Your task to perform on an android device: uninstall "Instagram" Image 0: 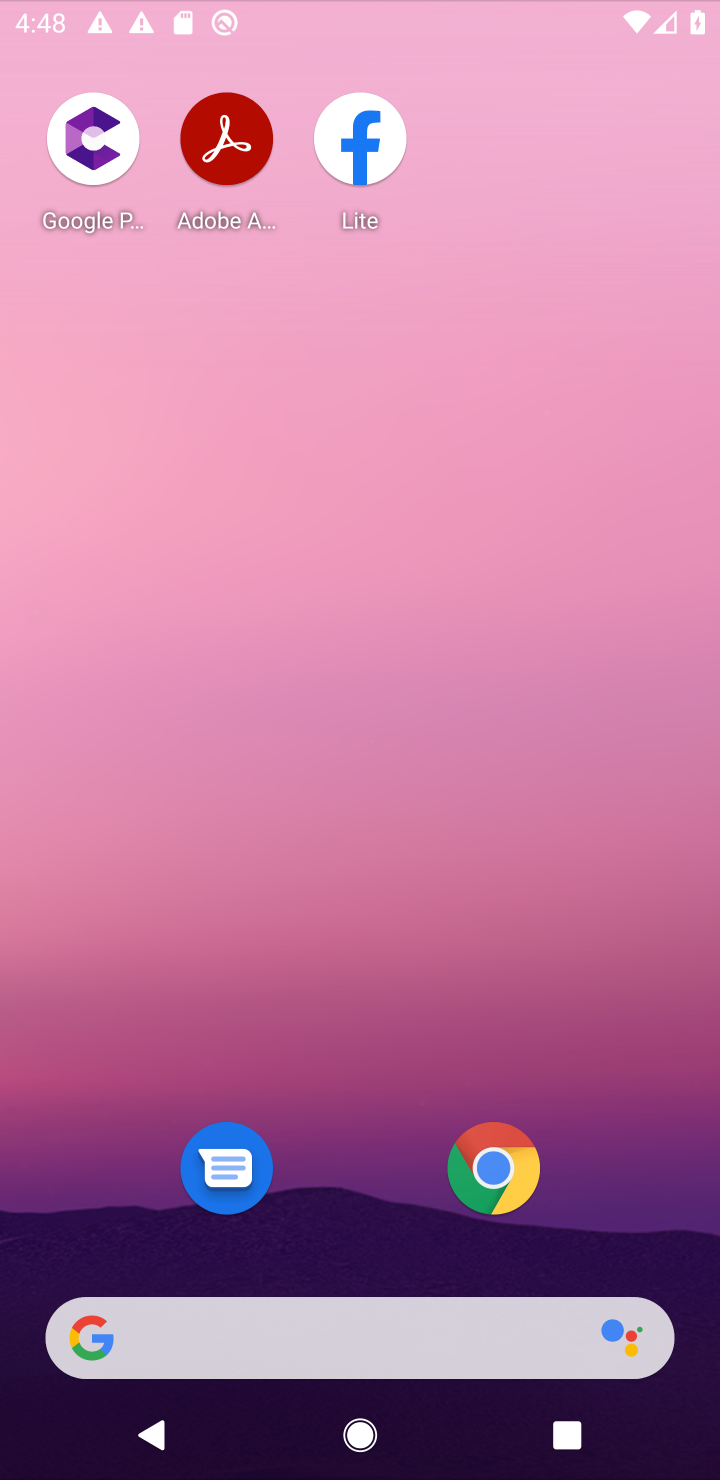
Step 0: press home button
Your task to perform on an android device: uninstall "Instagram" Image 1: 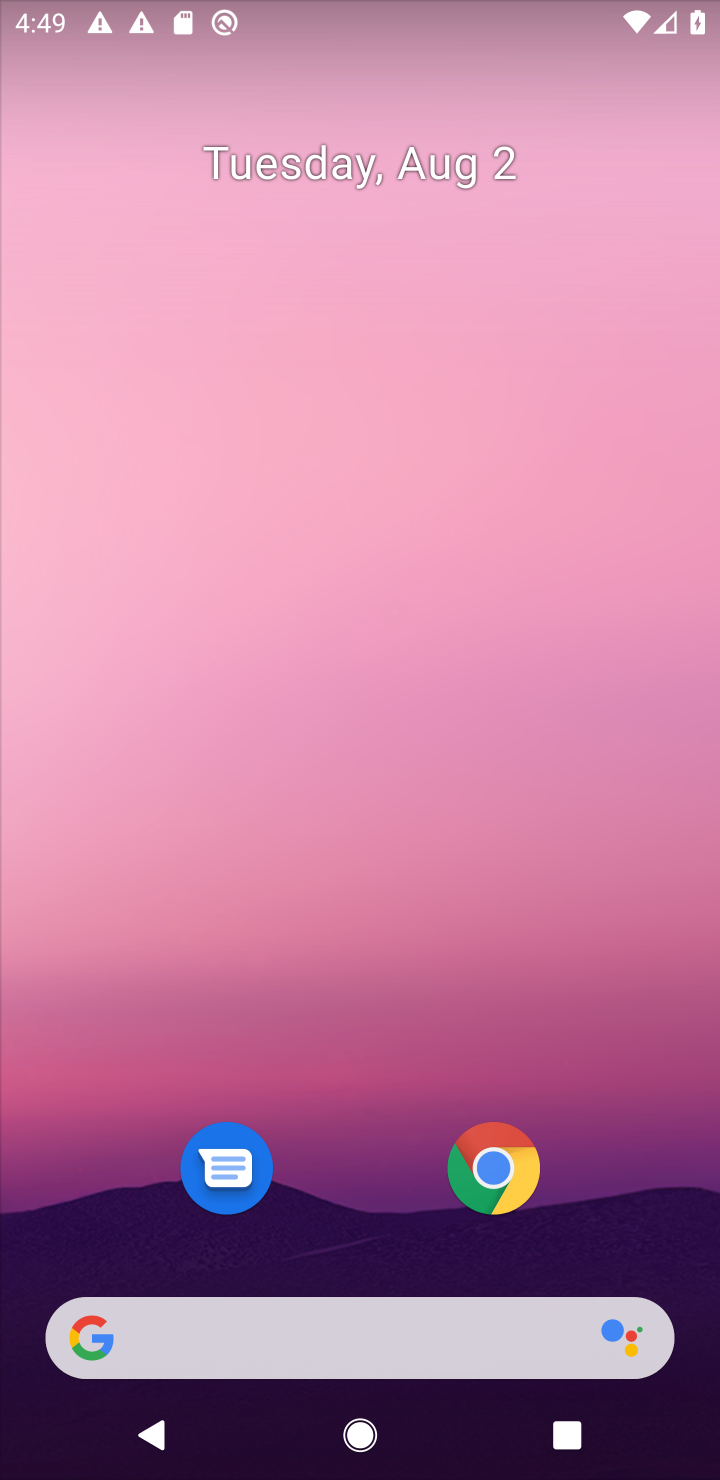
Step 1: drag from (372, 845) to (497, 11)
Your task to perform on an android device: uninstall "Instagram" Image 2: 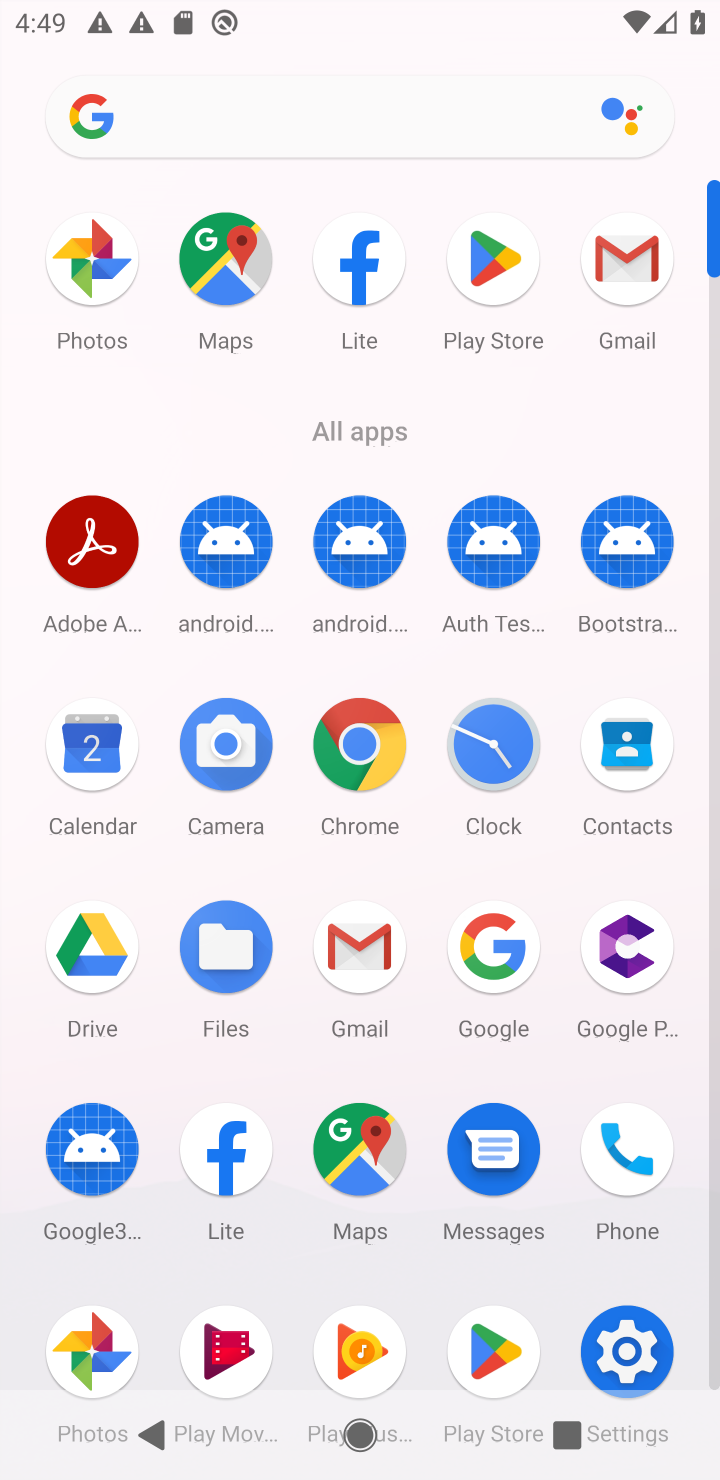
Step 2: click (504, 1347)
Your task to perform on an android device: uninstall "Instagram" Image 3: 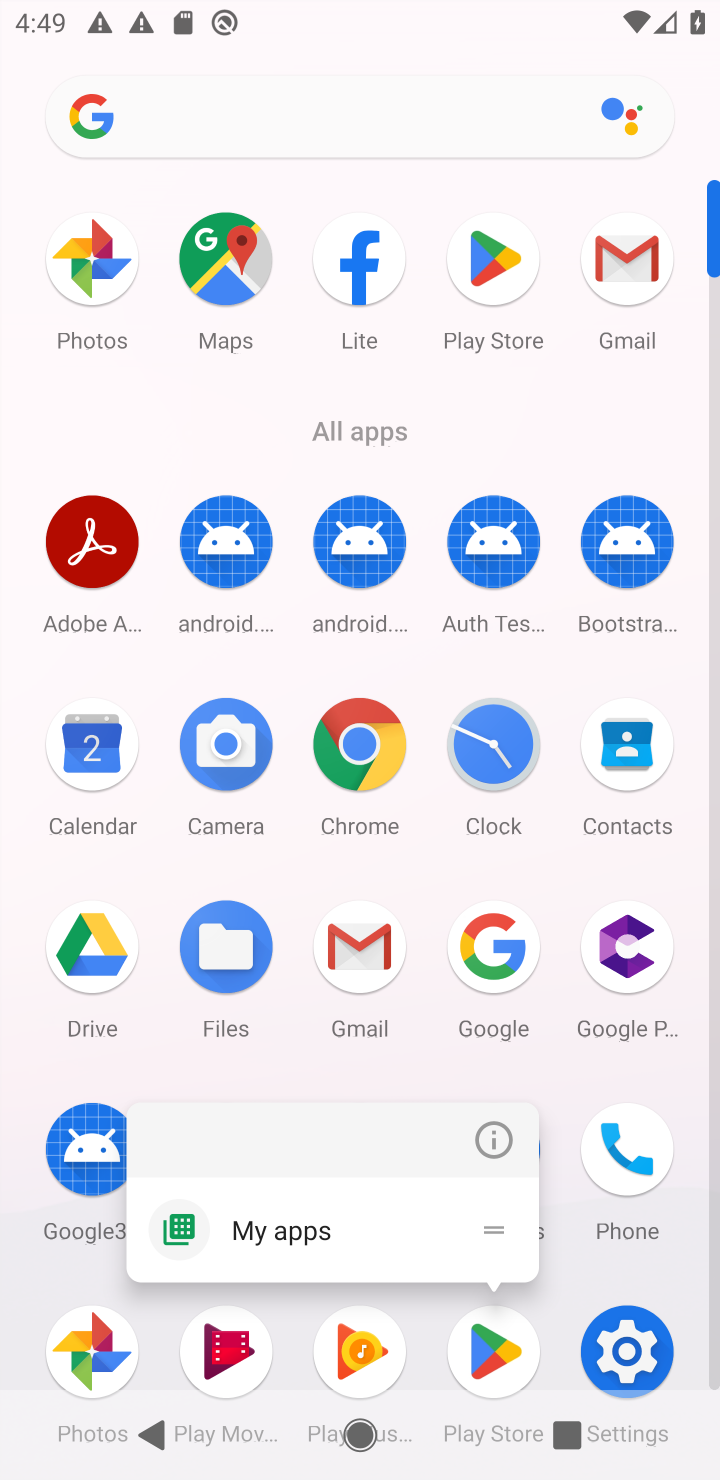
Step 3: click (481, 1320)
Your task to perform on an android device: uninstall "Instagram" Image 4: 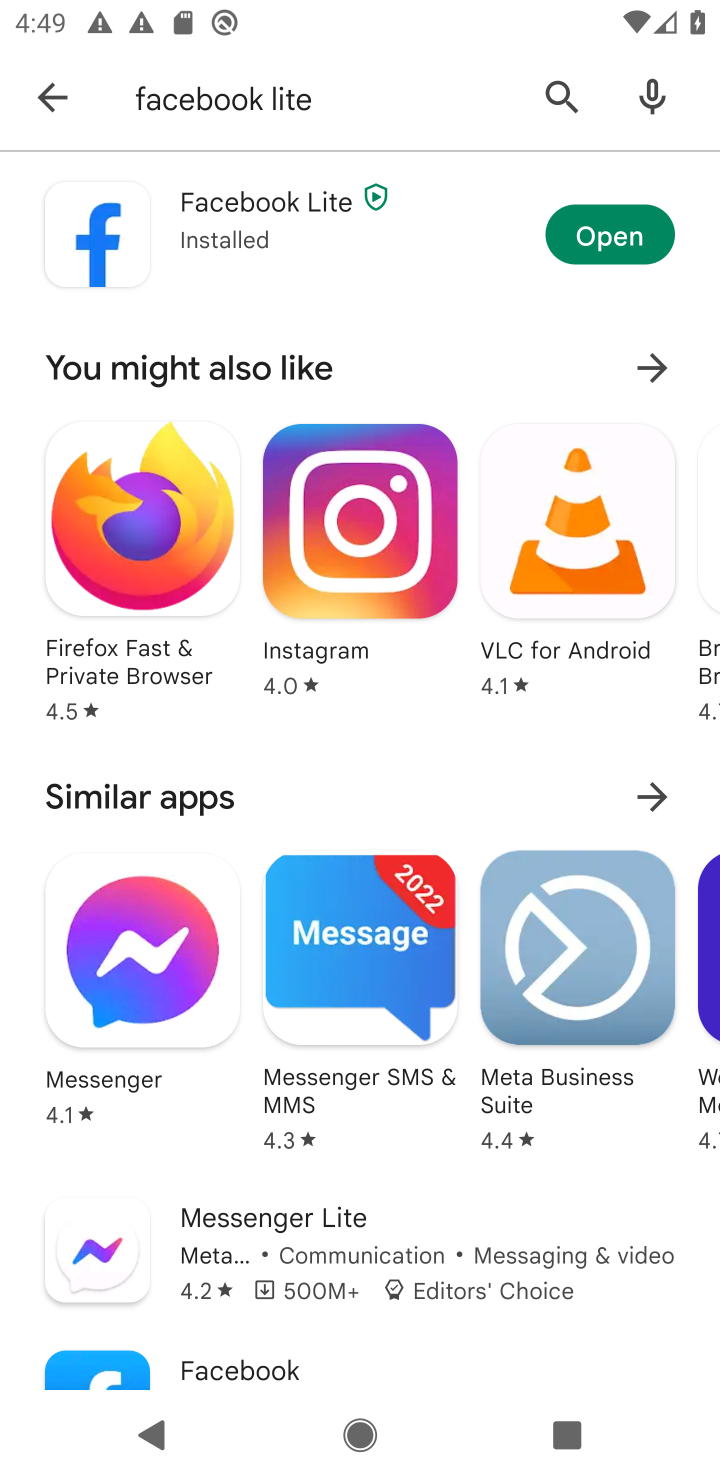
Step 4: click (283, 109)
Your task to perform on an android device: uninstall "Instagram" Image 5: 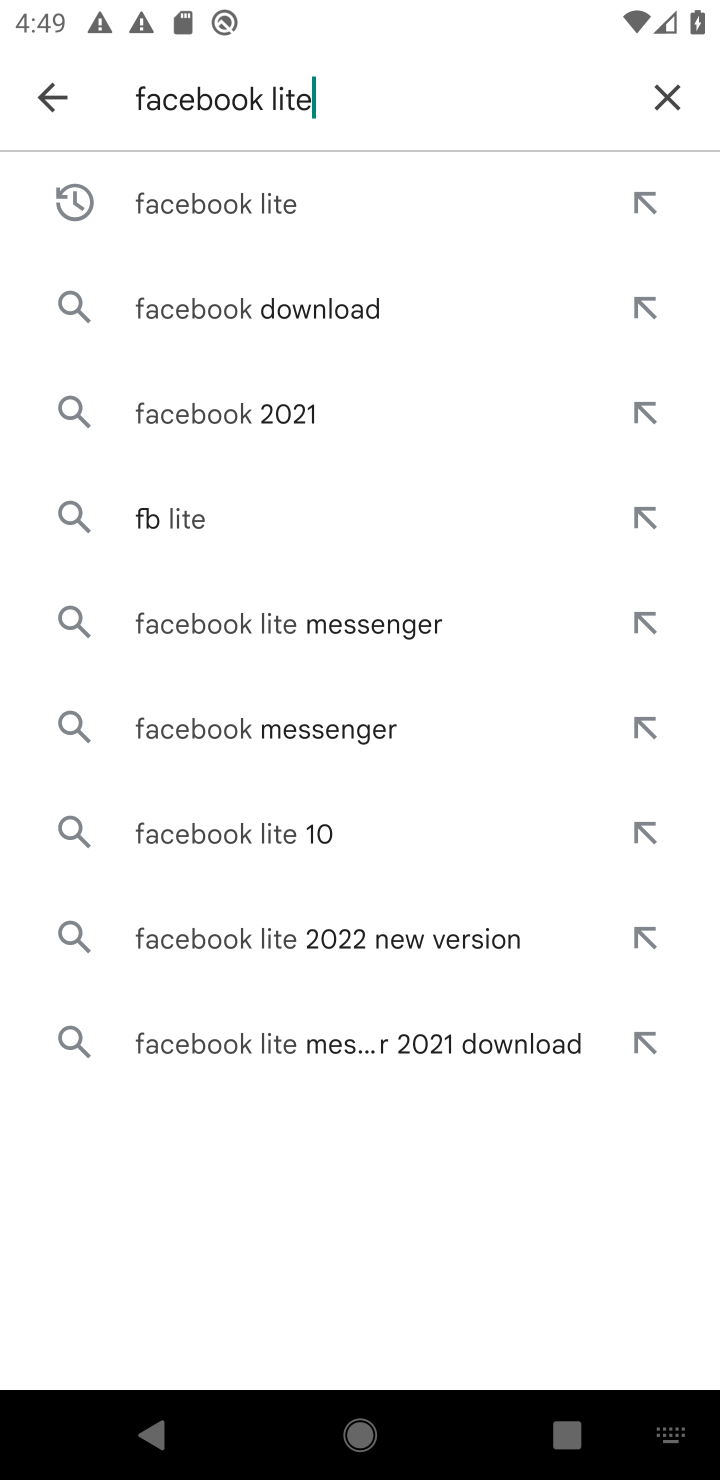
Step 5: click (650, 89)
Your task to perform on an android device: uninstall "Instagram" Image 6: 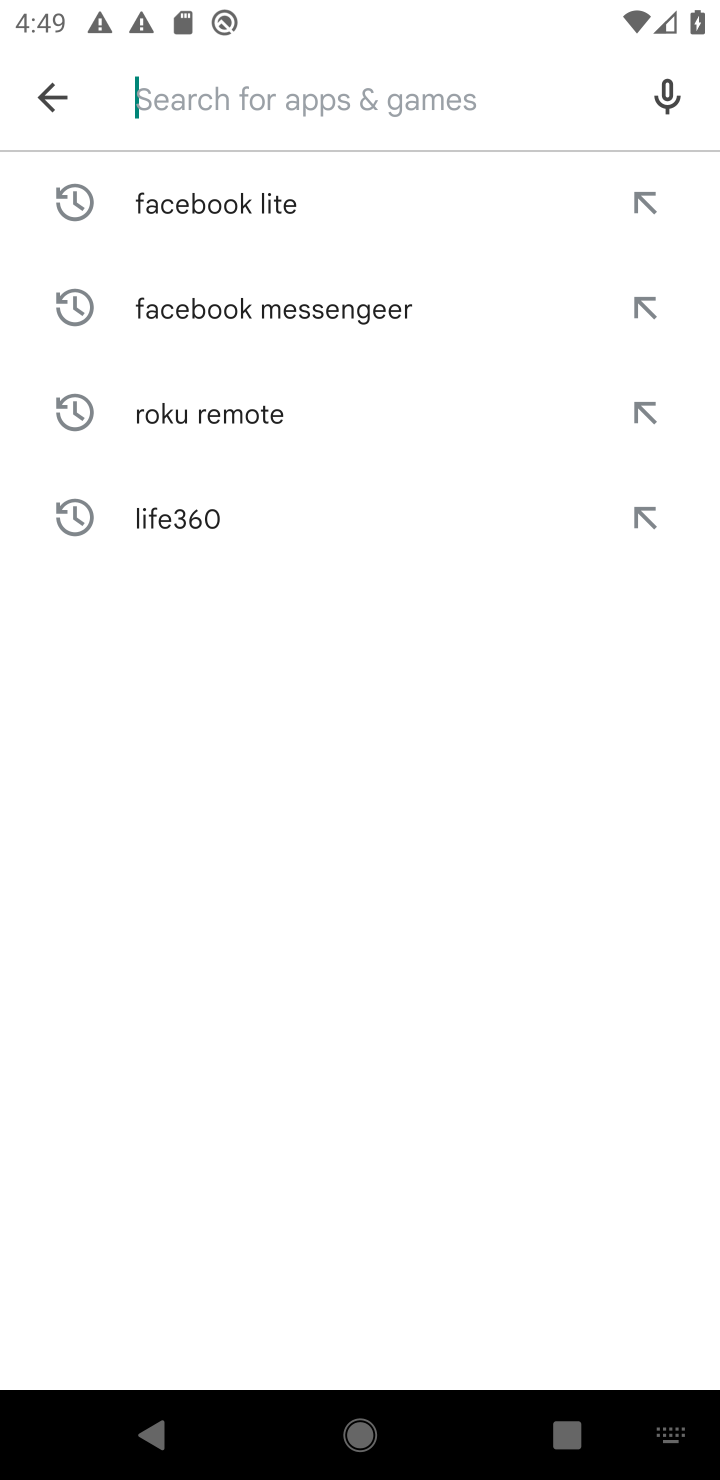
Step 6: type "INstagram"
Your task to perform on an android device: uninstall "Instagram" Image 7: 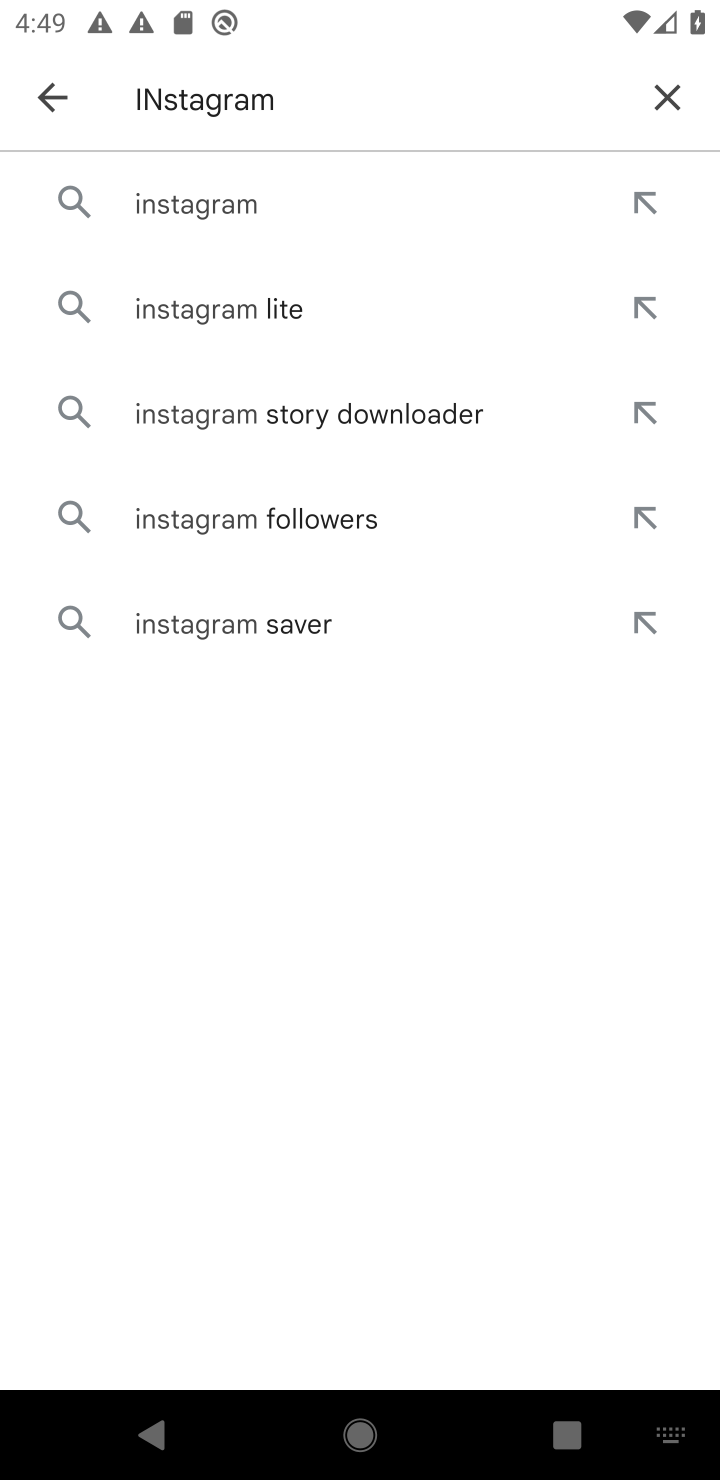
Step 7: click (230, 223)
Your task to perform on an android device: uninstall "Instagram" Image 8: 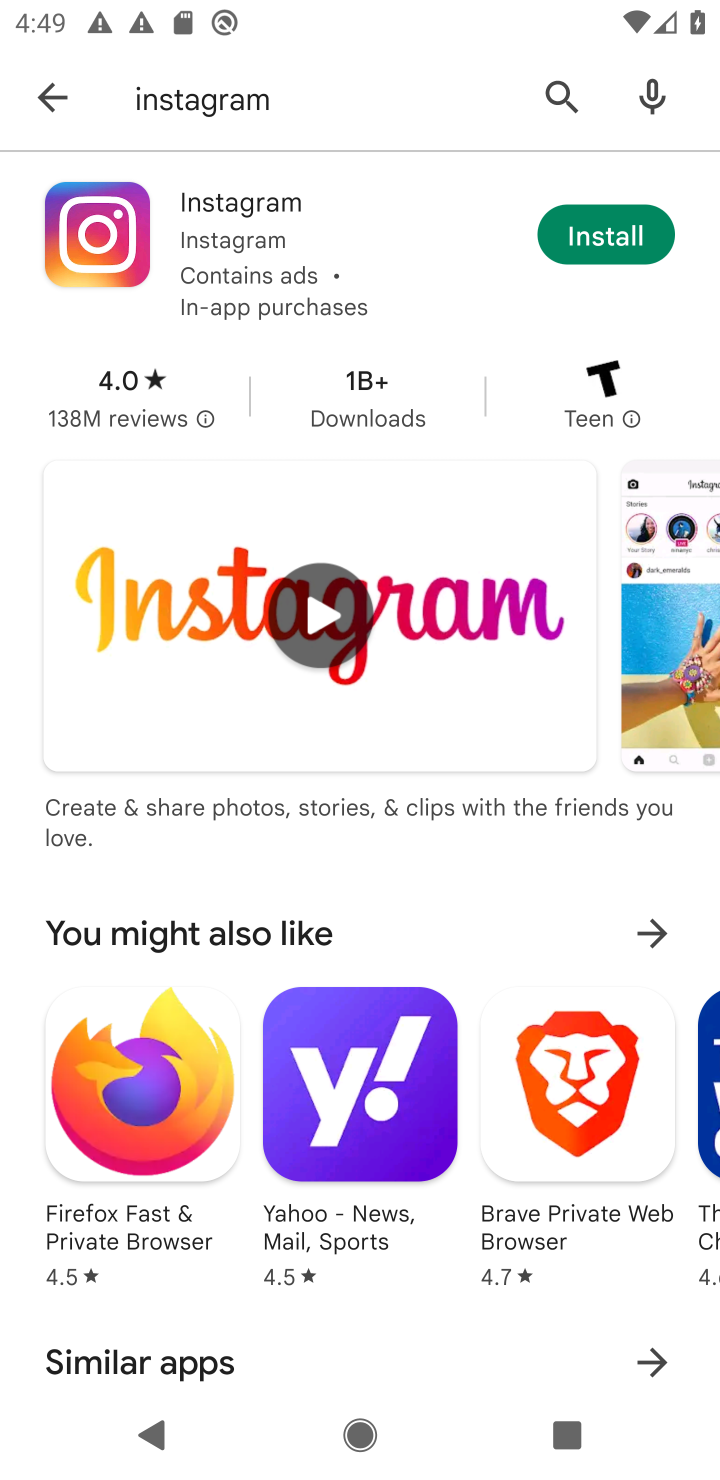
Step 8: task complete